Your task to perform on an android device: Open the map Image 0: 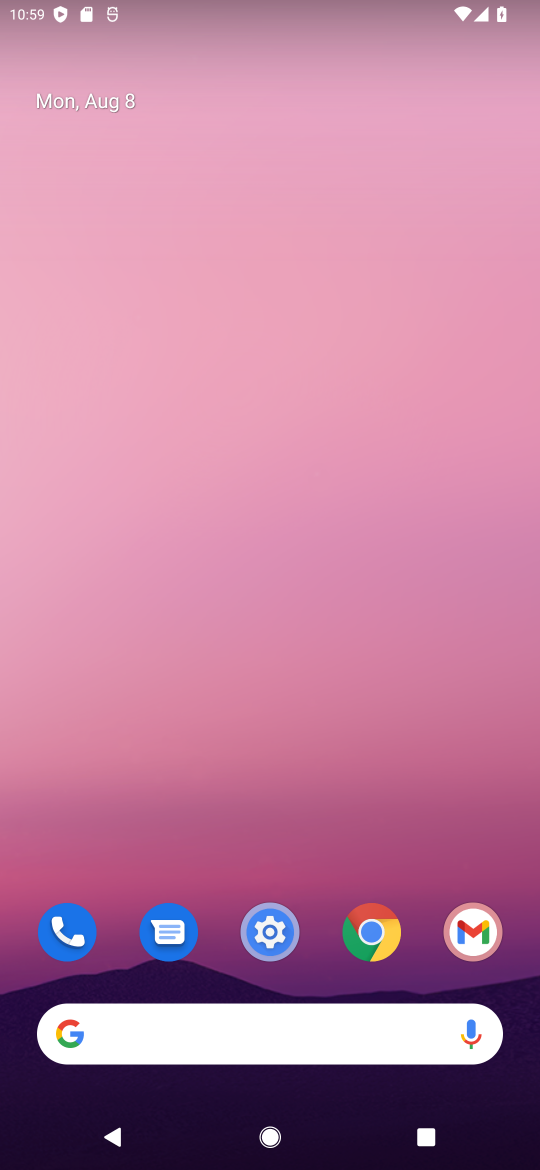
Step 0: drag from (253, 829) to (272, 250)
Your task to perform on an android device: Open the map Image 1: 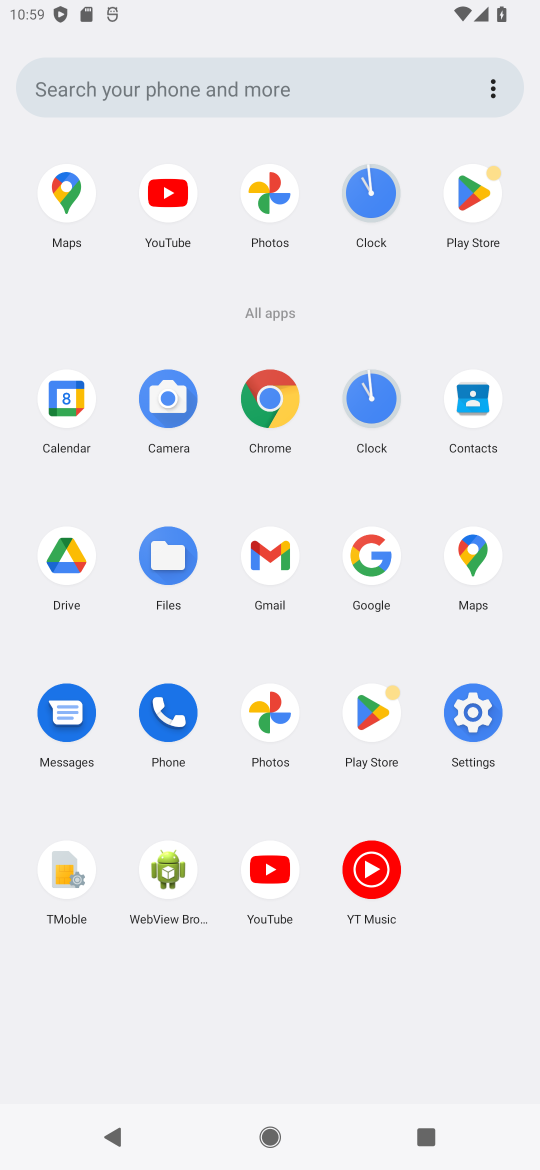
Step 1: click (80, 231)
Your task to perform on an android device: Open the map Image 2: 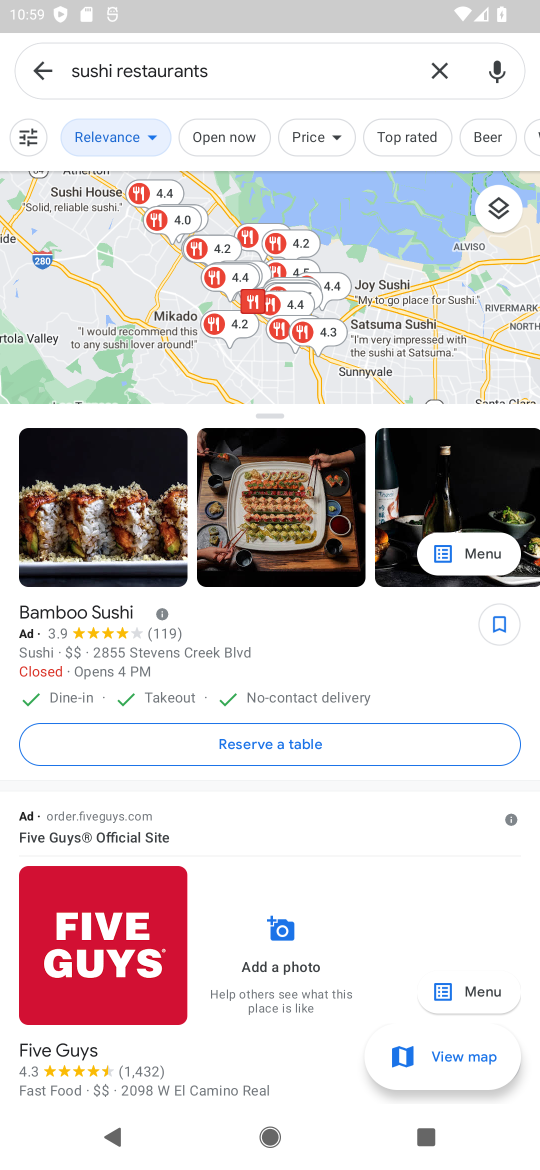
Step 2: task complete